Your task to perform on an android device: empty trash in google photos Image 0: 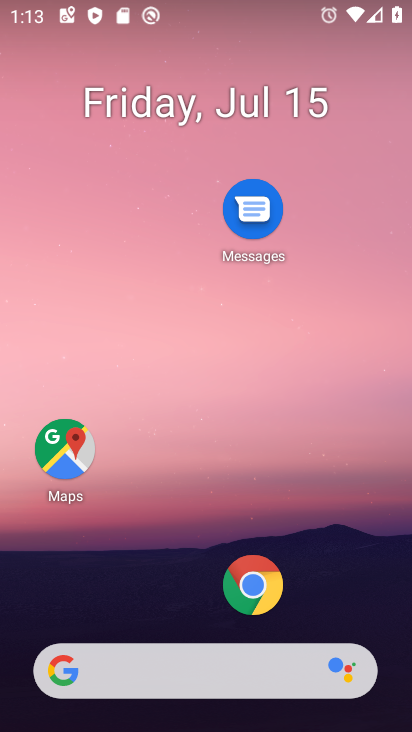
Step 0: drag from (201, 673) to (269, 111)
Your task to perform on an android device: empty trash in google photos Image 1: 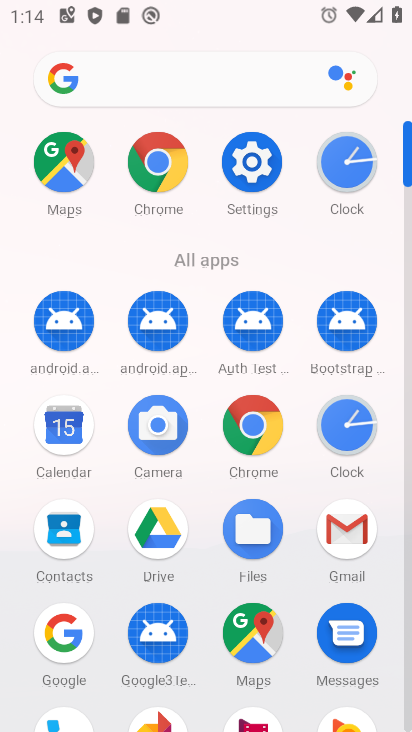
Step 1: click (350, 539)
Your task to perform on an android device: empty trash in google photos Image 2: 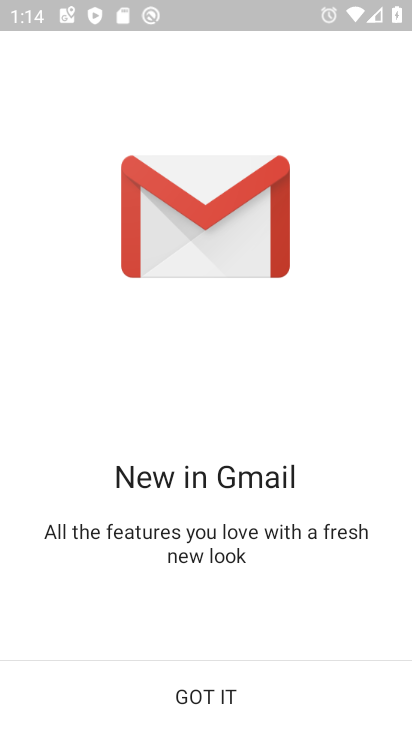
Step 2: click (200, 691)
Your task to perform on an android device: empty trash in google photos Image 3: 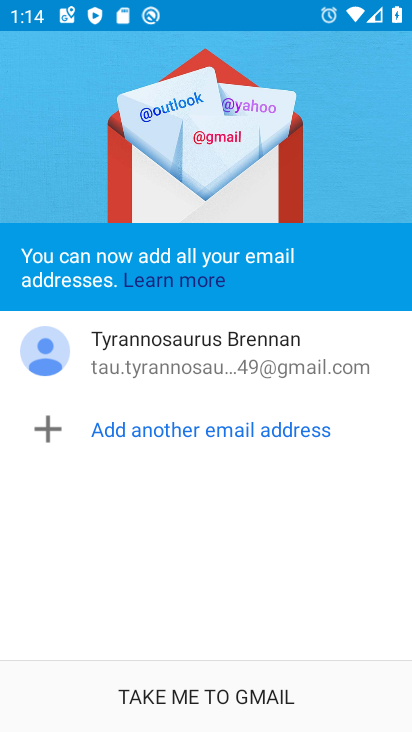
Step 3: click (200, 693)
Your task to perform on an android device: empty trash in google photos Image 4: 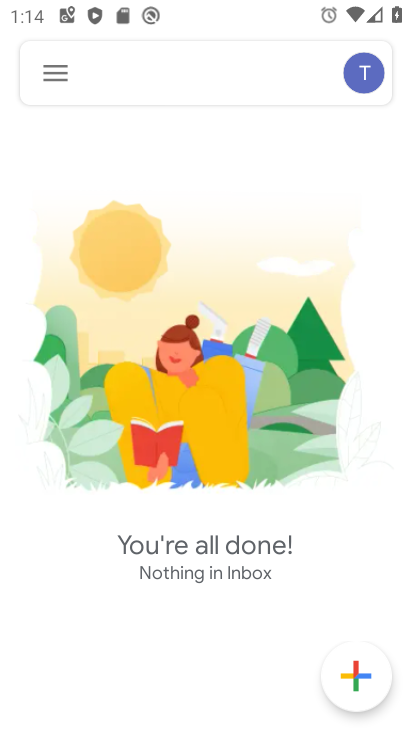
Step 4: click (53, 60)
Your task to perform on an android device: empty trash in google photos Image 5: 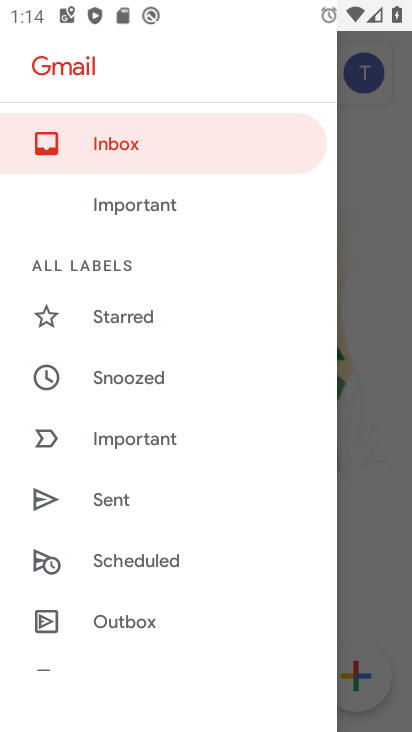
Step 5: drag from (185, 516) to (220, 217)
Your task to perform on an android device: empty trash in google photos Image 6: 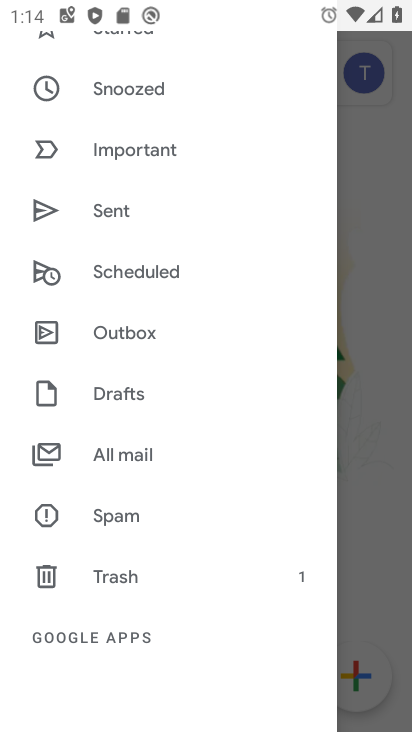
Step 6: click (120, 576)
Your task to perform on an android device: empty trash in google photos Image 7: 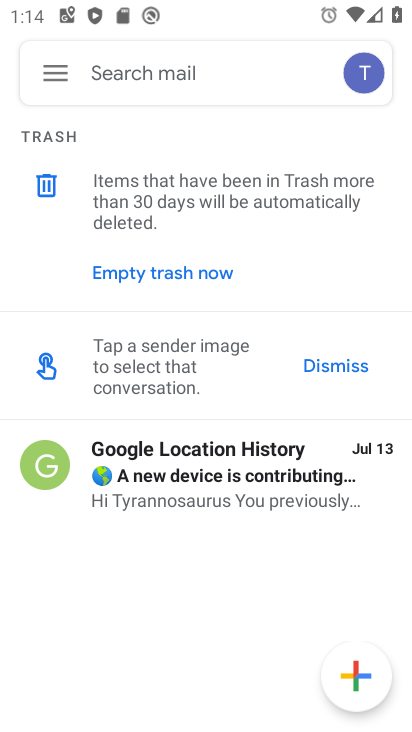
Step 7: click (177, 270)
Your task to perform on an android device: empty trash in google photos Image 8: 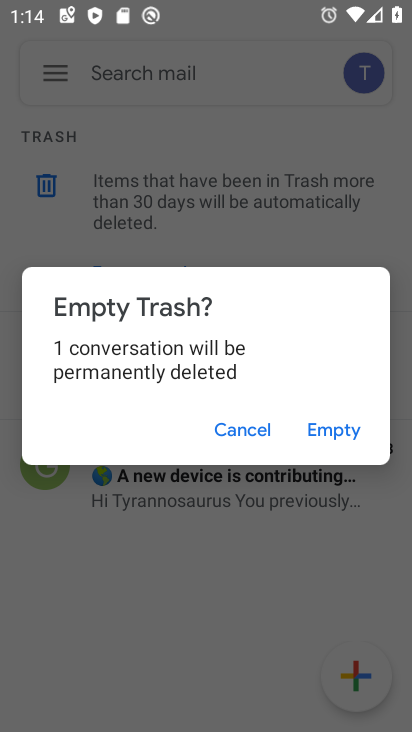
Step 8: click (318, 435)
Your task to perform on an android device: empty trash in google photos Image 9: 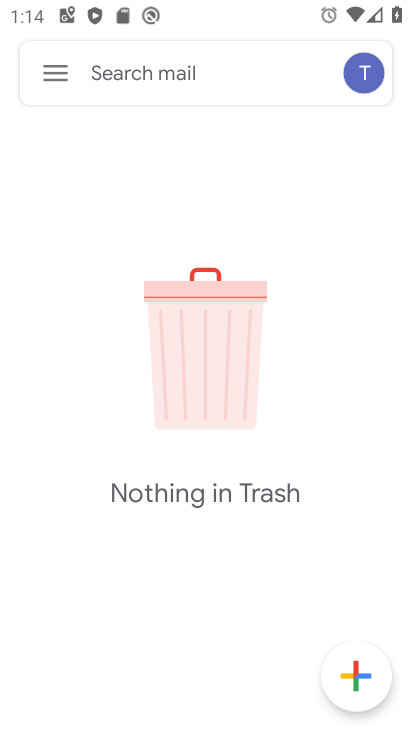
Step 9: task complete